Your task to perform on an android device: read, delete, or share a saved page in the chrome app Image 0: 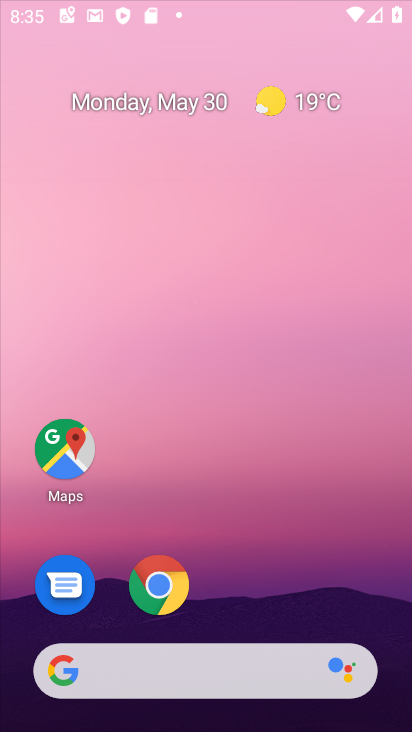
Step 0: drag from (410, 206) to (387, 80)
Your task to perform on an android device: read, delete, or share a saved page in the chrome app Image 1: 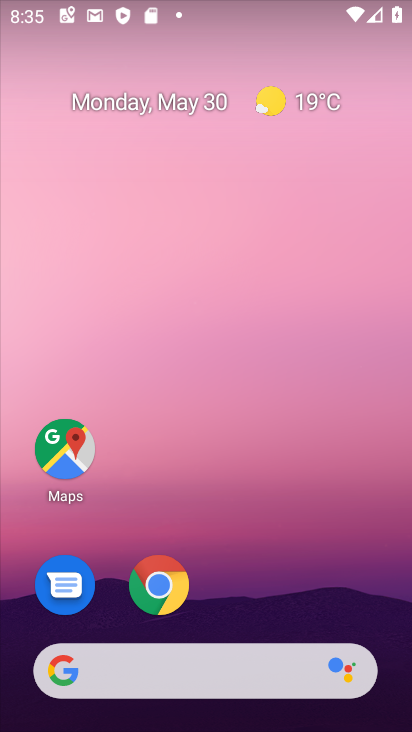
Step 1: click (161, 580)
Your task to perform on an android device: read, delete, or share a saved page in the chrome app Image 2: 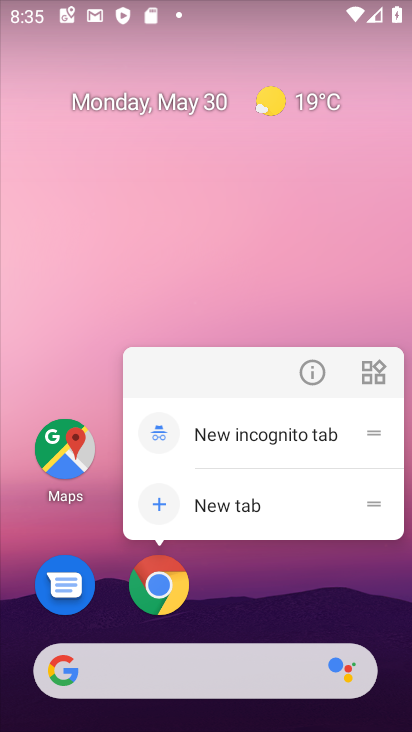
Step 2: click (321, 373)
Your task to perform on an android device: read, delete, or share a saved page in the chrome app Image 3: 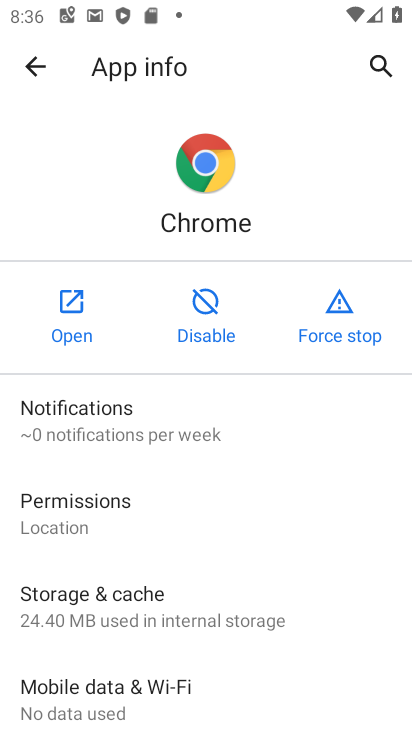
Step 3: click (61, 305)
Your task to perform on an android device: read, delete, or share a saved page in the chrome app Image 4: 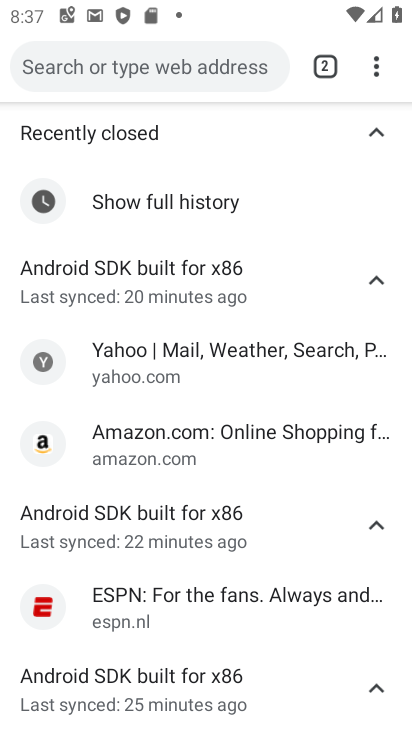
Step 4: click (373, 57)
Your task to perform on an android device: read, delete, or share a saved page in the chrome app Image 5: 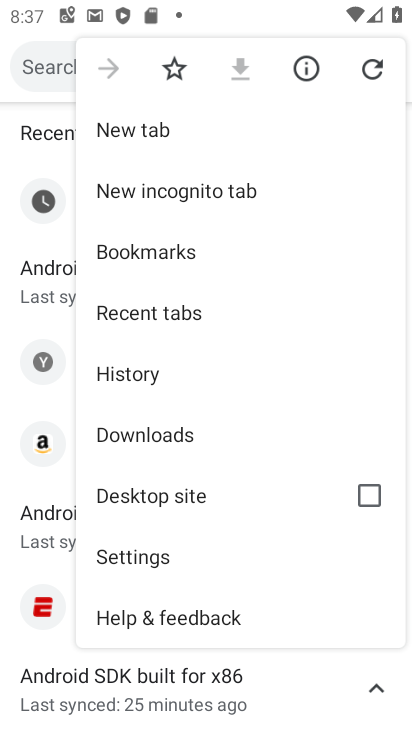
Step 5: click (181, 254)
Your task to perform on an android device: read, delete, or share a saved page in the chrome app Image 6: 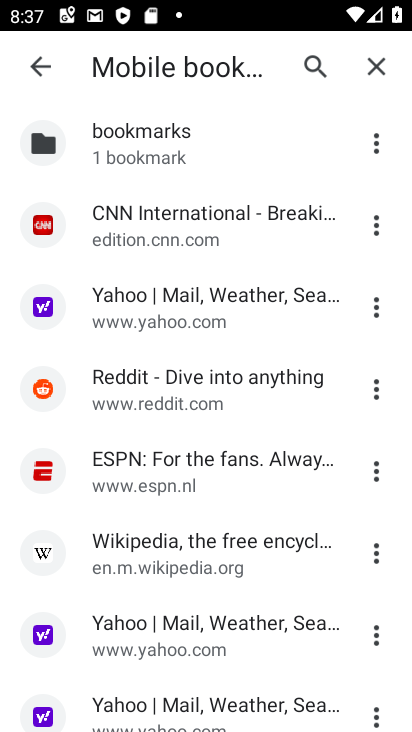
Step 6: task complete